Your task to perform on an android device: Go to Amazon Image 0: 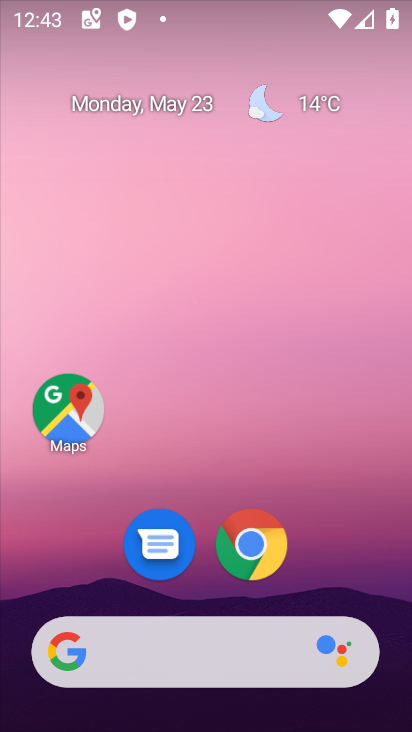
Step 0: click (252, 544)
Your task to perform on an android device: Go to Amazon Image 1: 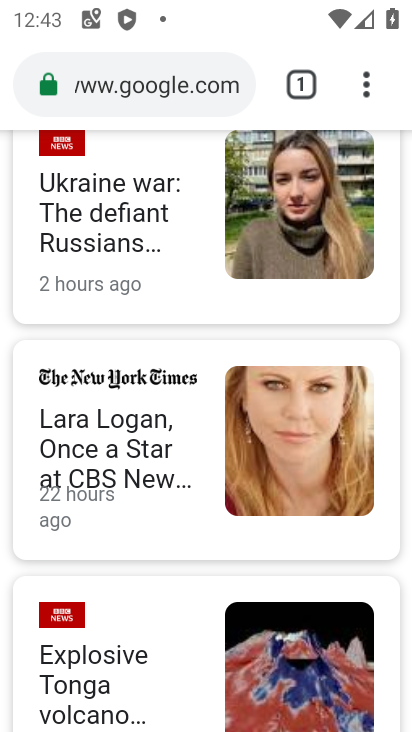
Step 1: click (171, 83)
Your task to perform on an android device: Go to Amazon Image 2: 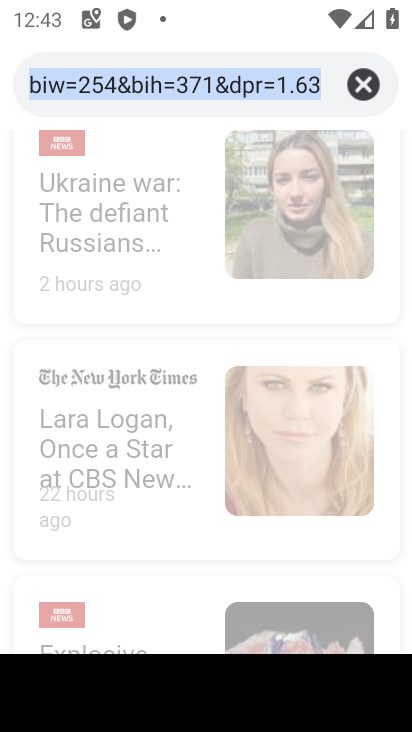
Step 2: click (359, 82)
Your task to perform on an android device: Go to Amazon Image 3: 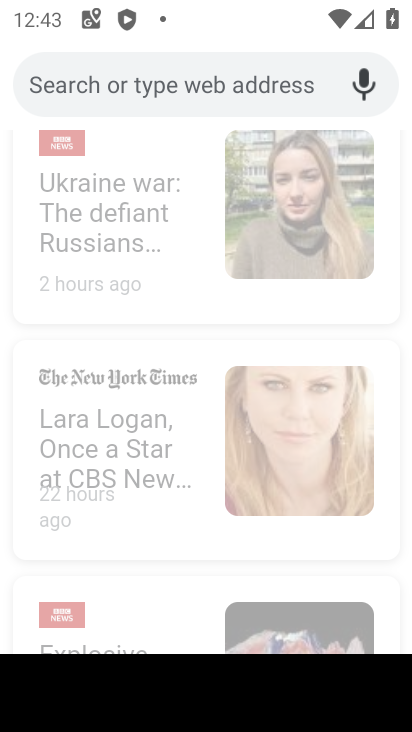
Step 3: type "amazon"
Your task to perform on an android device: Go to Amazon Image 4: 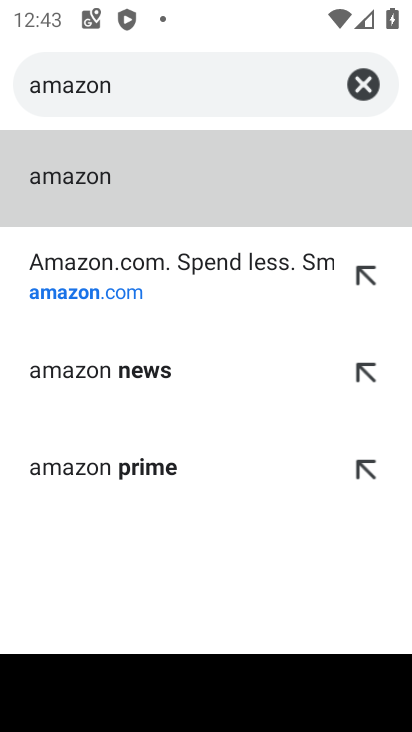
Step 4: click (106, 291)
Your task to perform on an android device: Go to Amazon Image 5: 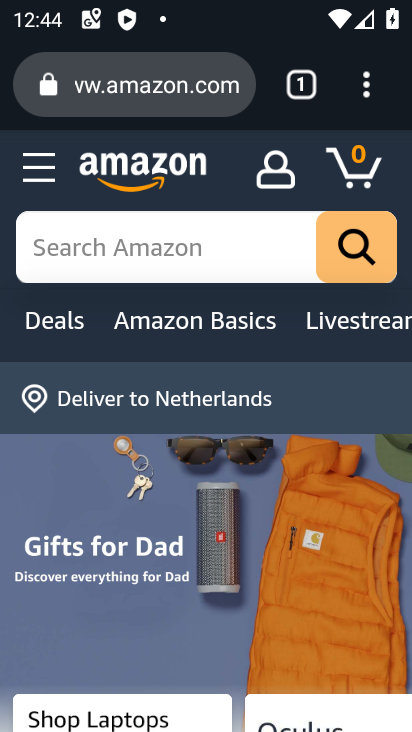
Step 5: task complete